Your task to perform on an android device: What's on my calendar today? Image 0: 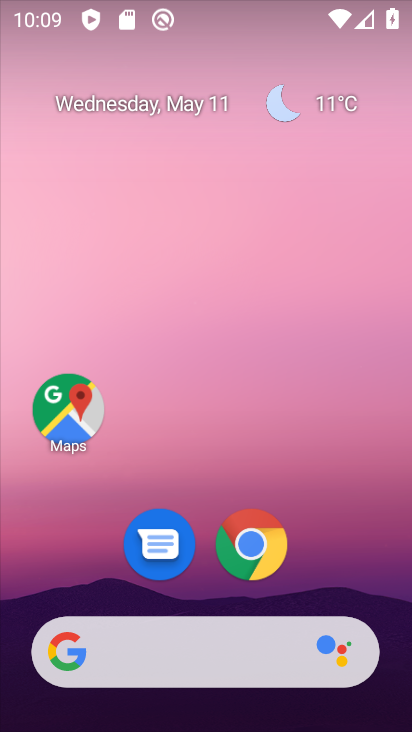
Step 0: drag from (218, 557) to (294, 75)
Your task to perform on an android device: What's on my calendar today? Image 1: 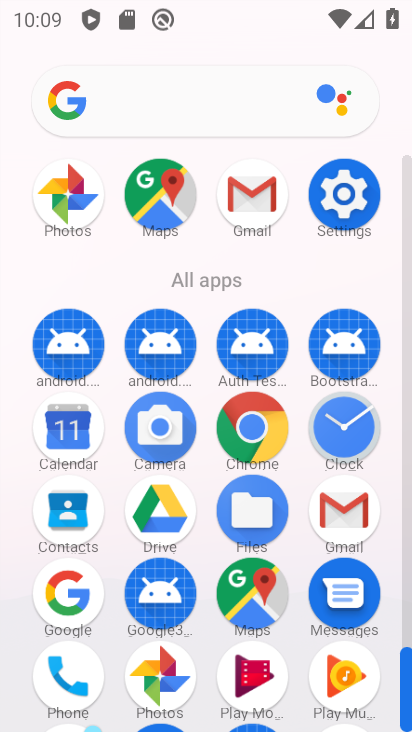
Step 1: click (52, 440)
Your task to perform on an android device: What's on my calendar today? Image 2: 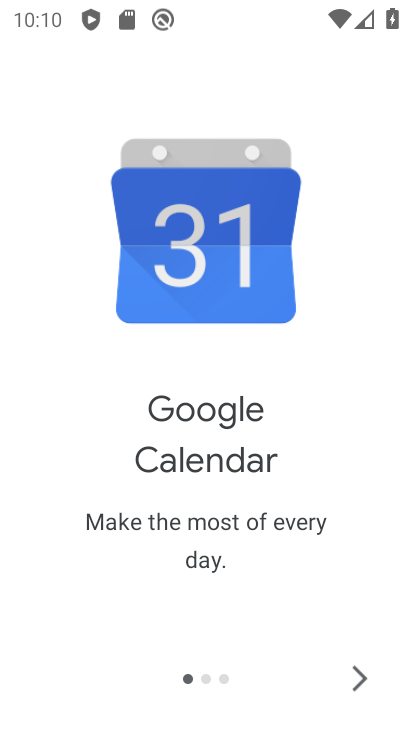
Step 2: click (369, 676)
Your task to perform on an android device: What's on my calendar today? Image 3: 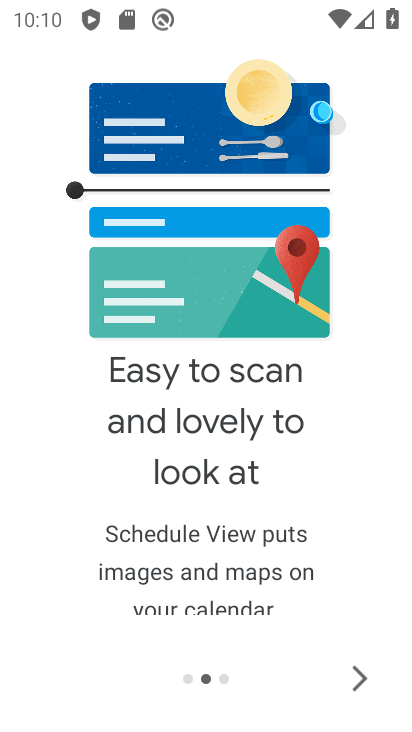
Step 3: click (368, 677)
Your task to perform on an android device: What's on my calendar today? Image 4: 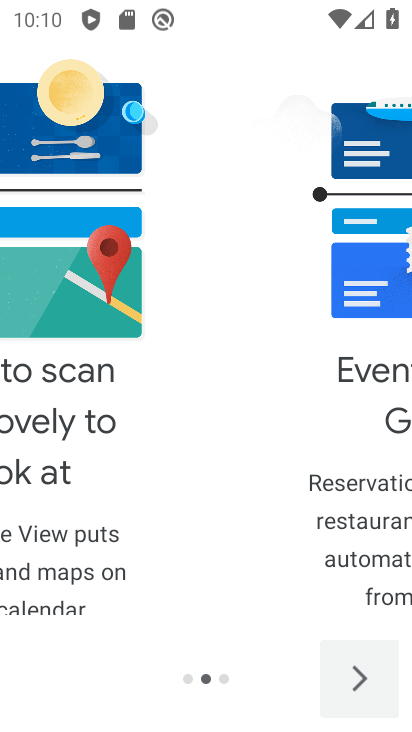
Step 4: click (367, 676)
Your task to perform on an android device: What's on my calendar today? Image 5: 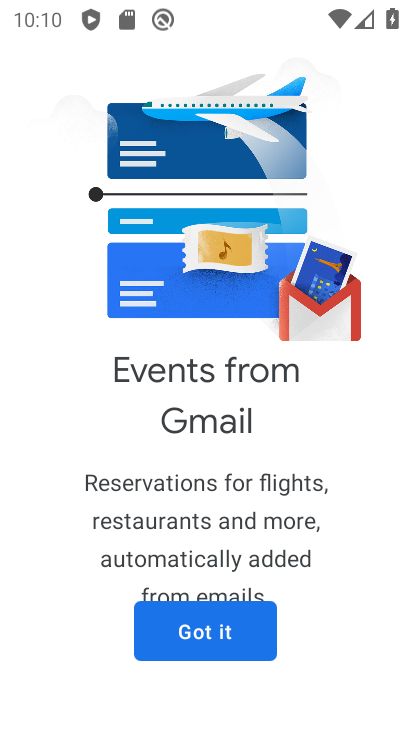
Step 5: click (222, 641)
Your task to perform on an android device: What's on my calendar today? Image 6: 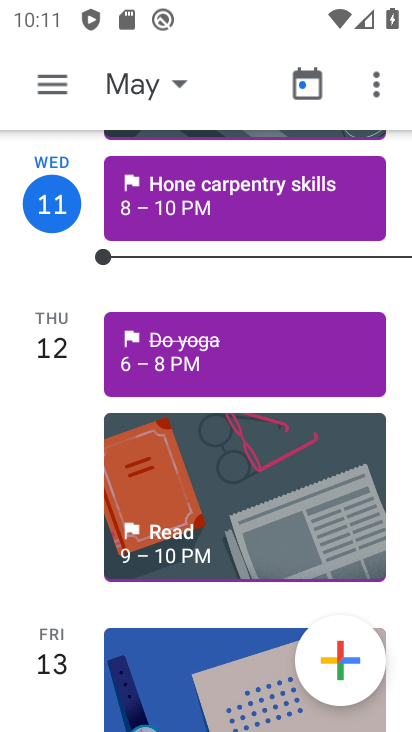
Step 6: click (160, 477)
Your task to perform on an android device: What's on my calendar today? Image 7: 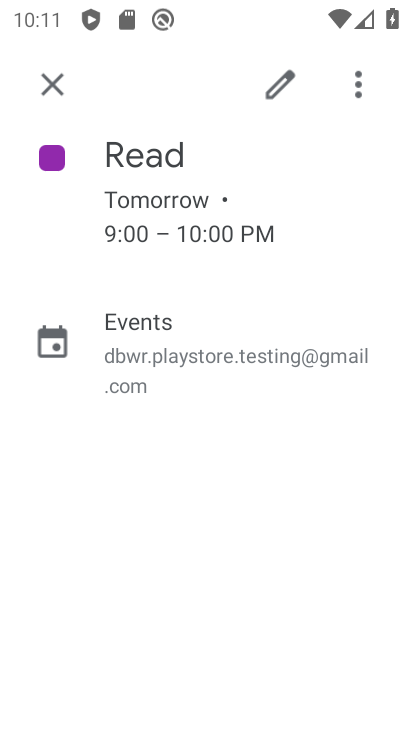
Step 7: task complete